Your task to perform on an android device: Show me popular videos on Youtube Image 0: 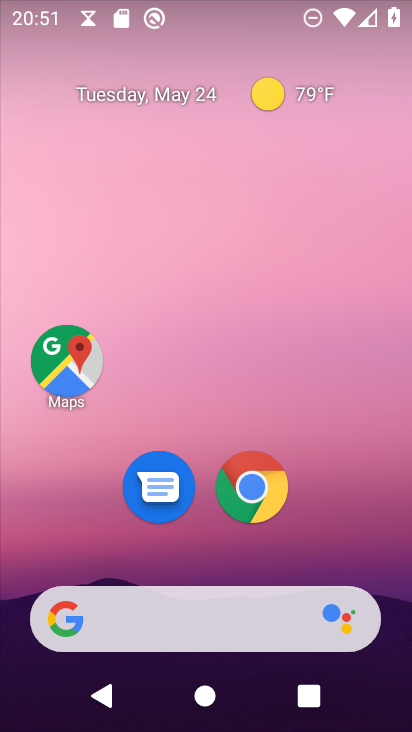
Step 0: drag from (23, 655) to (330, 134)
Your task to perform on an android device: Show me popular videos on Youtube Image 1: 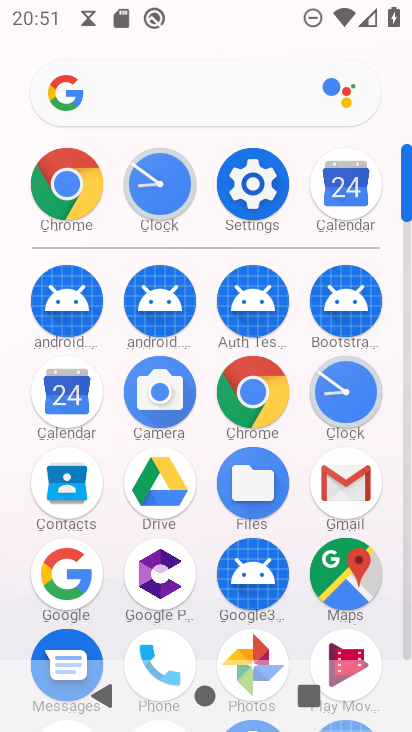
Step 1: drag from (26, 575) to (357, 160)
Your task to perform on an android device: Show me popular videos on Youtube Image 2: 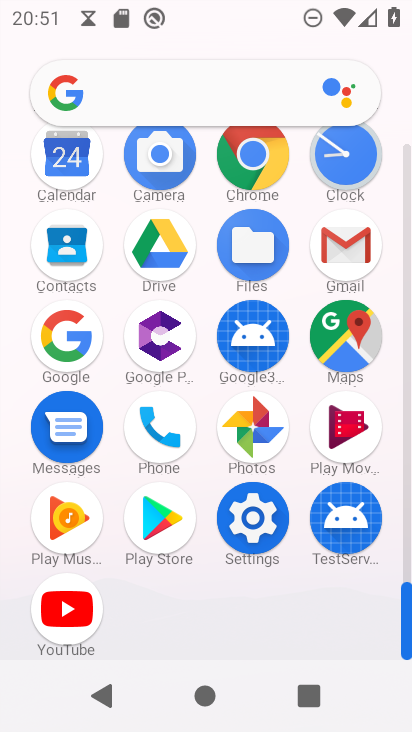
Step 2: click (56, 617)
Your task to perform on an android device: Show me popular videos on Youtube Image 3: 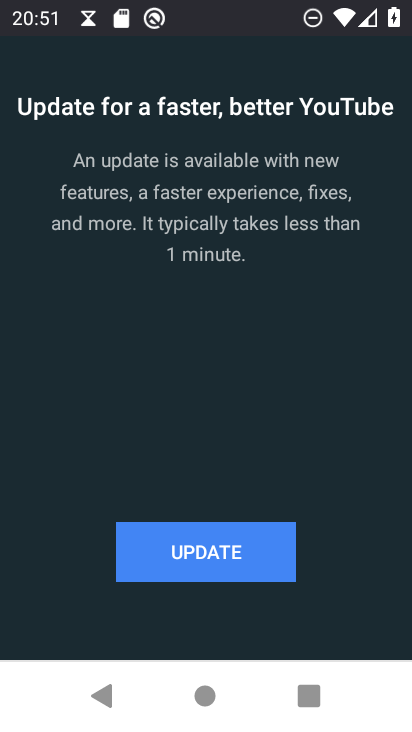
Step 3: task complete